Your task to perform on an android device: toggle sleep mode Image 0: 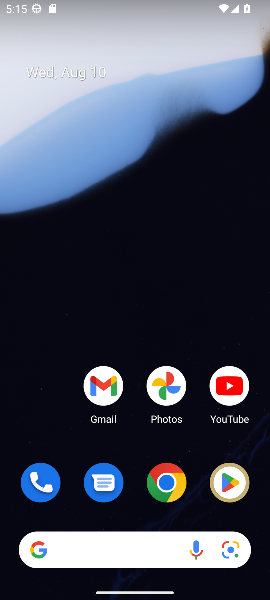
Step 0: drag from (59, 406) to (134, 21)
Your task to perform on an android device: toggle sleep mode Image 1: 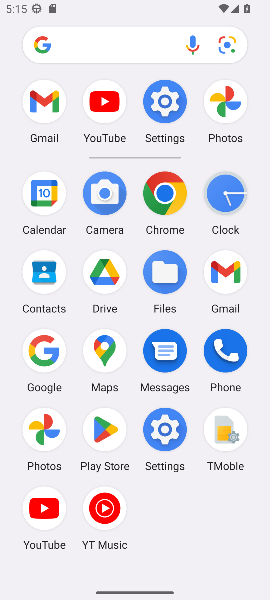
Step 1: click (159, 101)
Your task to perform on an android device: toggle sleep mode Image 2: 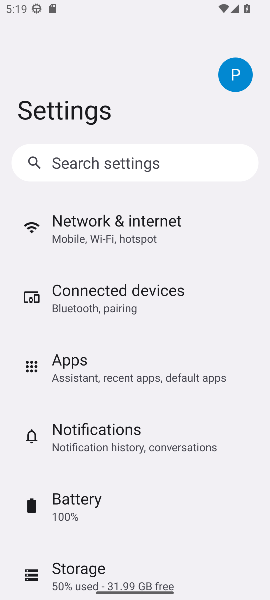
Step 2: task complete